Your task to perform on an android device: visit the assistant section in the google photos Image 0: 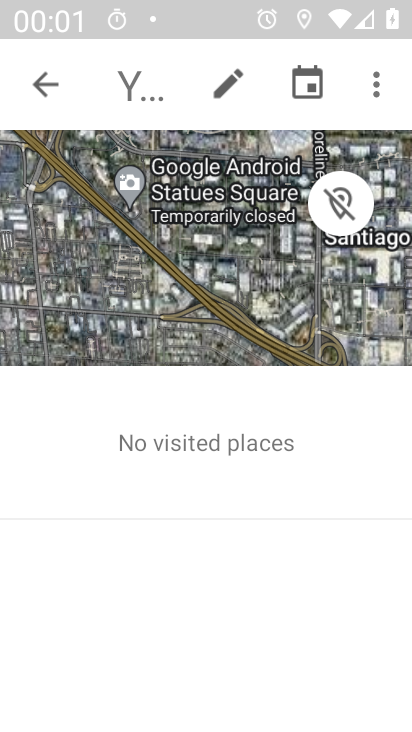
Step 0: press home button
Your task to perform on an android device: visit the assistant section in the google photos Image 1: 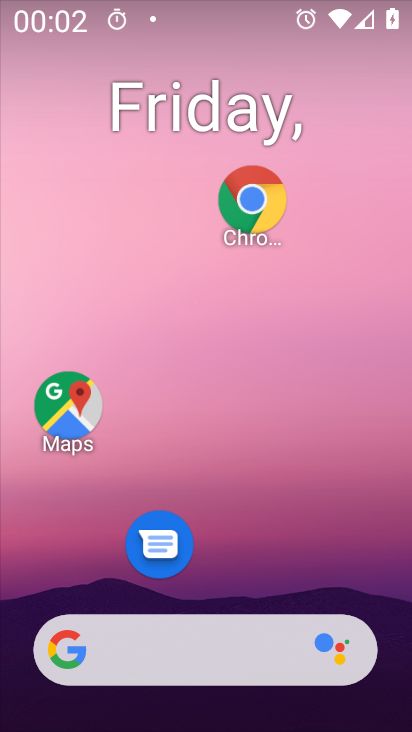
Step 1: drag from (259, 559) to (385, 341)
Your task to perform on an android device: visit the assistant section in the google photos Image 2: 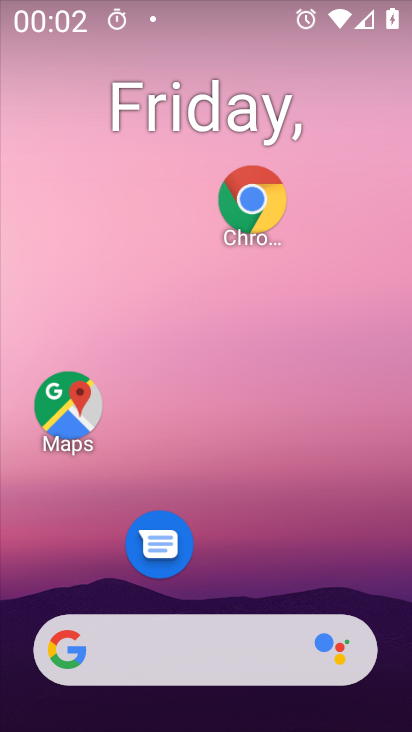
Step 2: drag from (224, 566) to (235, 154)
Your task to perform on an android device: visit the assistant section in the google photos Image 3: 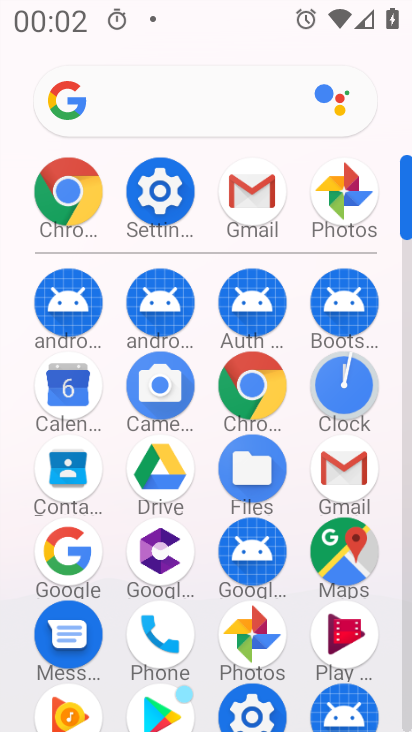
Step 3: click (357, 192)
Your task to perform on an android device: visit the assistant section in the google photos Image 4: 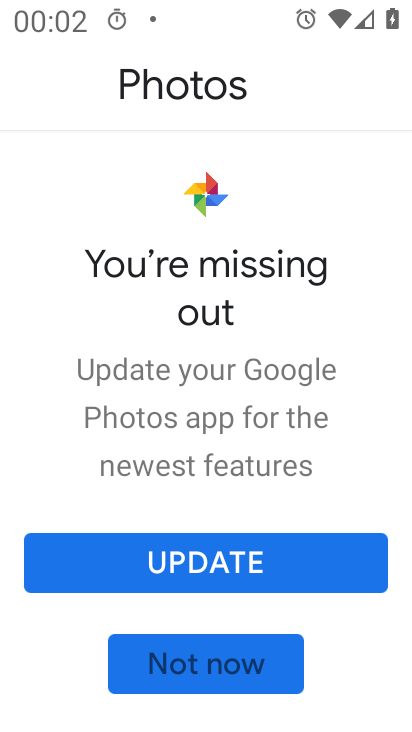
Step 4: click (266, 675)
Your task to perform on an android device: visit the assistant section in the google photos Image 5: 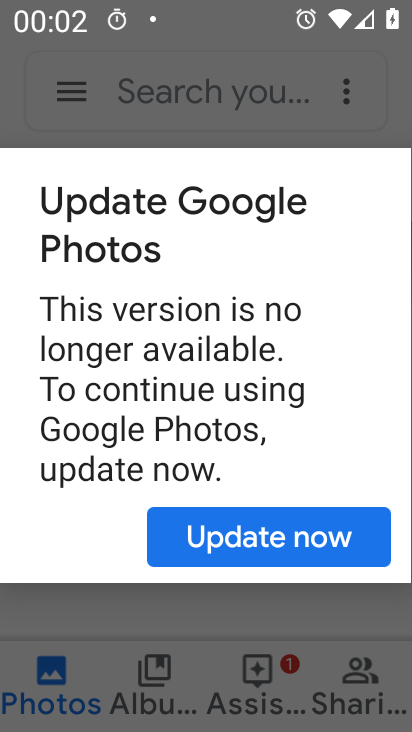
Step 5: click (277, 538)
Your task to perform on an android device: visit the assistant section in the google photos Image 6: 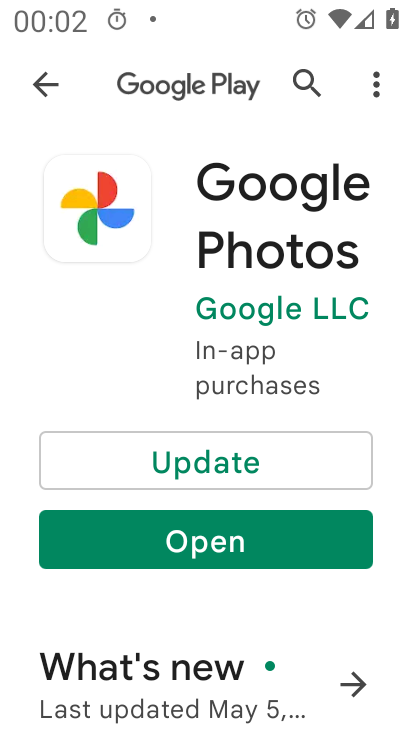
Step 6: click (277, 538)
Your task to perform on an android device: visit the assistant section in the google photos Image 7: 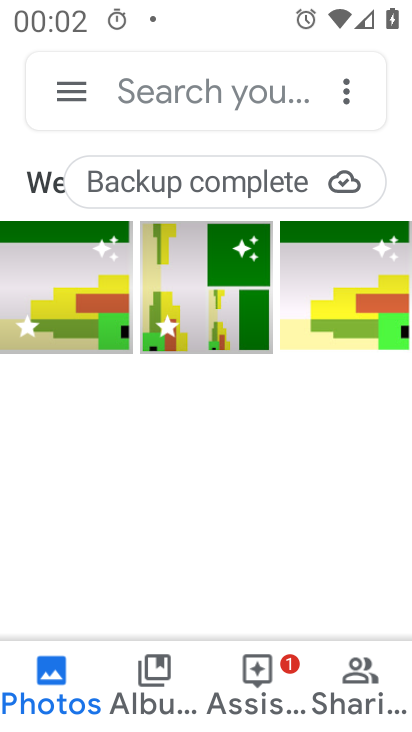
Step 7: click (266, 685)
Your task to perform on an android device: visit the assistant section in the google photos Image 8: 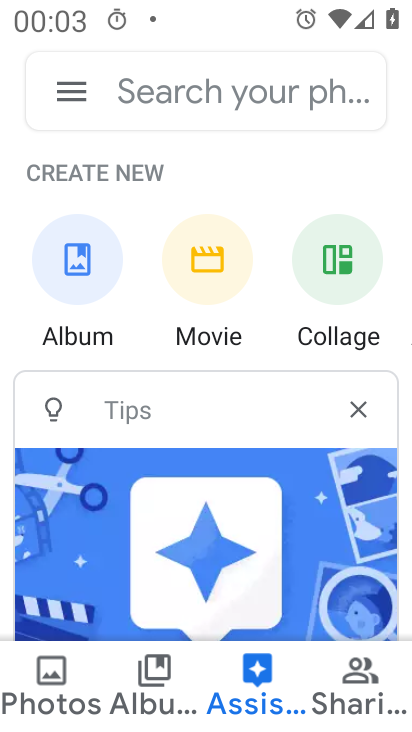
Step 8: task complete